Your task to perform on an android device: turn off sleep mode Image 0: 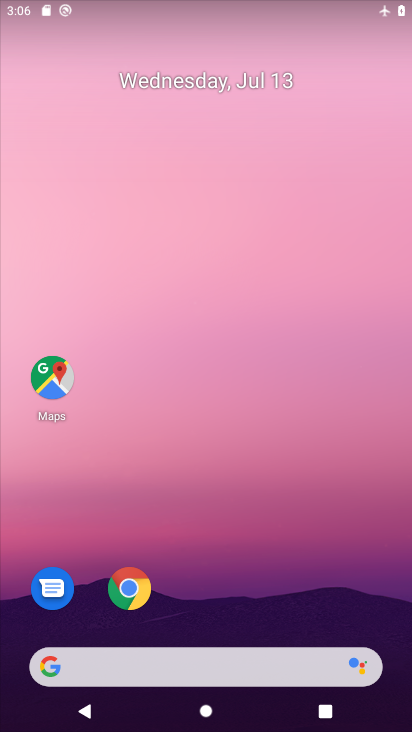
Step 0: click (220, 101)
Your task to perform on an android device: turn off sleep mode Image 1: 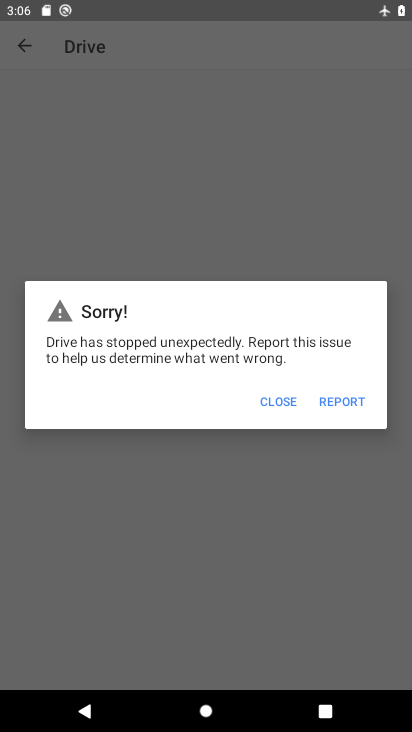
Step 1: press home button
Your task to perform on an android device: turn off sleep mode Image 2: 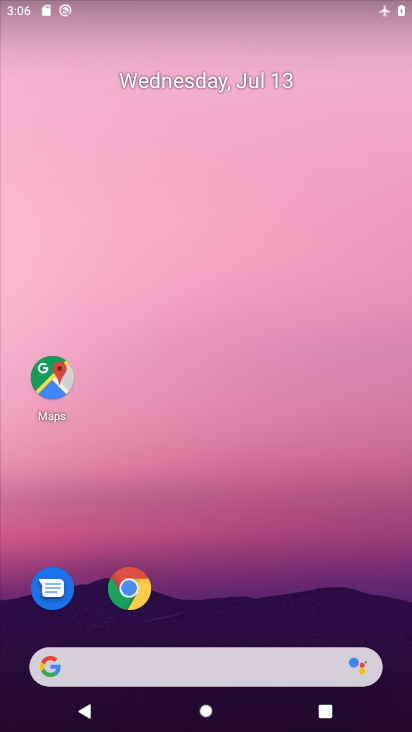
Step 2: drag from (185, 645) to (271, 9)
Your task to perform on an android device: turn off sleep mode Image 3: 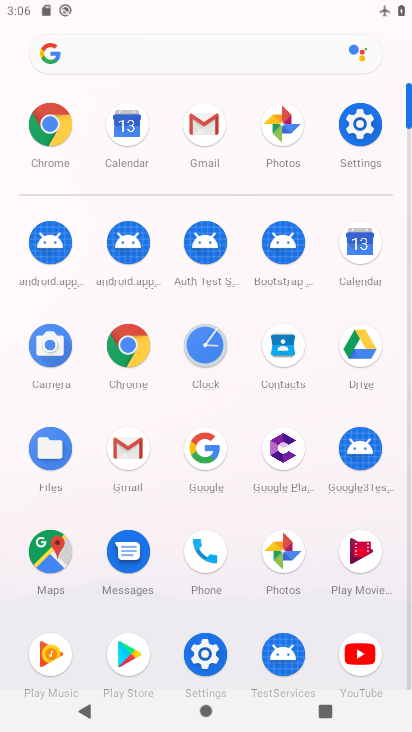
Step 3: click (351, 111)
Your task to perform on an android device: turn off sleep mode Image 4: 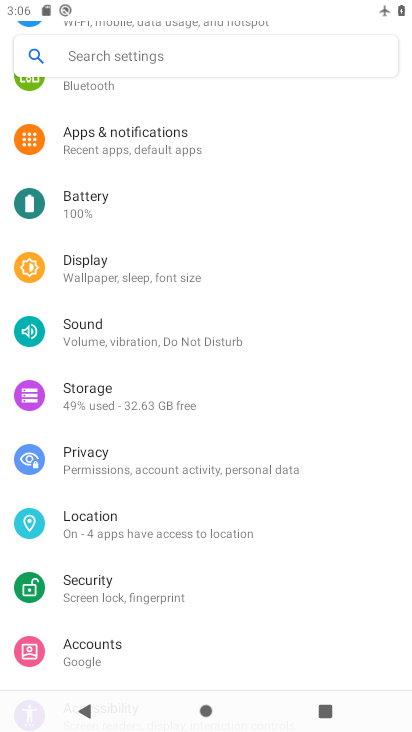
Step 4: click (119, 284)
Your task to perform on an android device: turn off sleep mode Image 5: 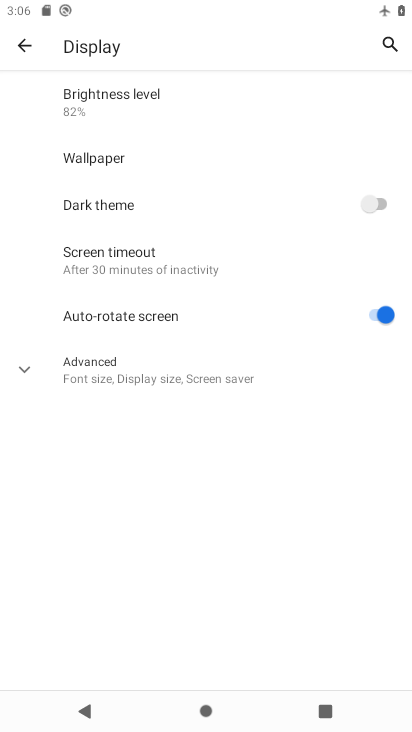
Step 5: click (99, 358)
Your task to perform on an android device: turn off sleep mode Image 6: 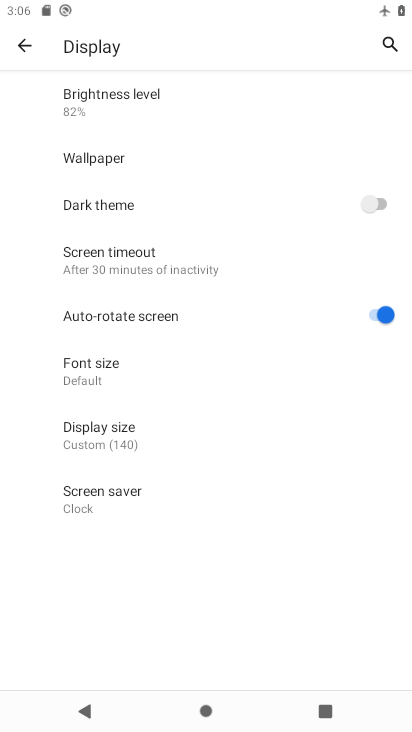
Step 6: task complete